Your task to perform on an android device: Open location settings Image 0: 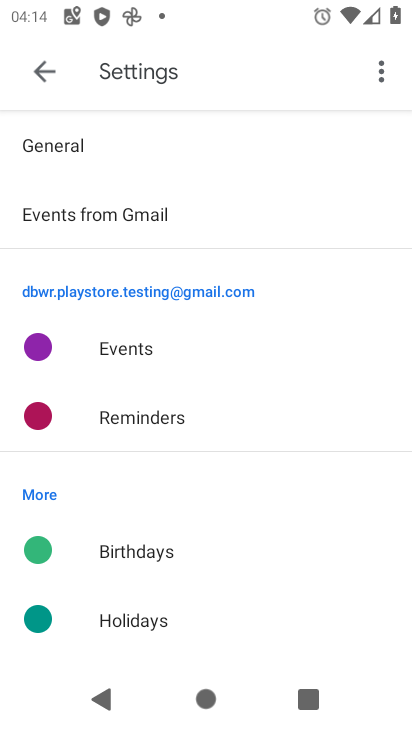
Step 0: press home button
Your task to perform on an android device: Open location settings Image 1: 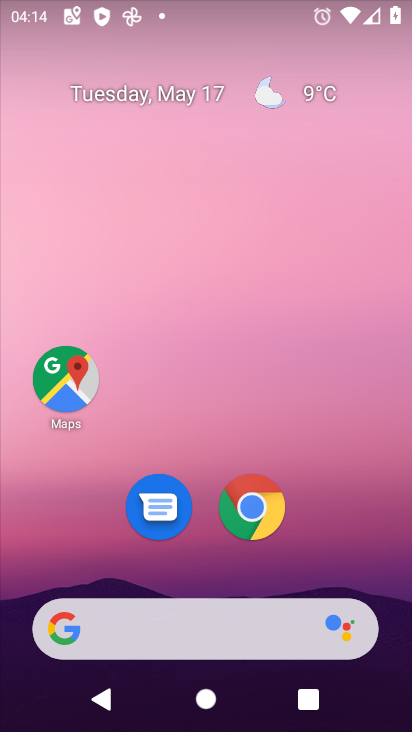
Step 1: drag from (359, 514) to (218, 18)
Your task to perform on an android device: Open location settings Image 2: 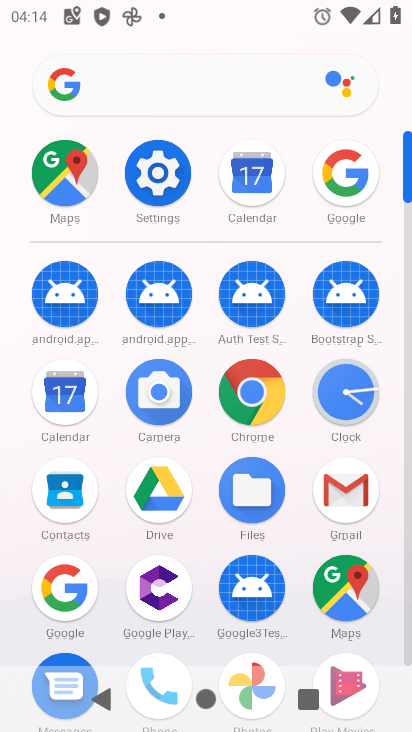
Step 2: click (171, 214)
Your task to perform on an android device: Open location settings Image 3: 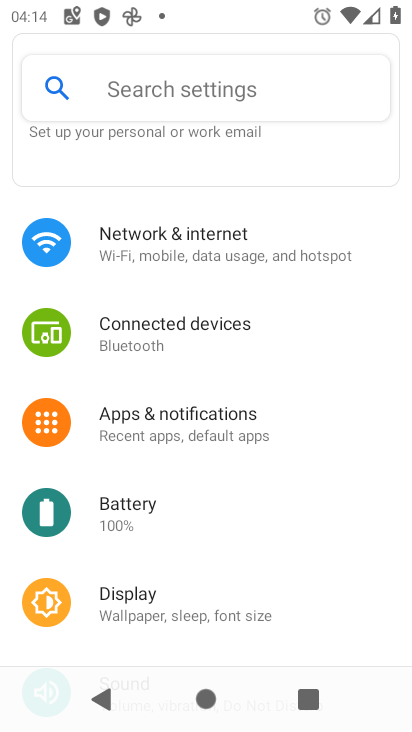
Step 3: drag from (220, 553) to (206, 153)
Your task to perform on an android device: Open location settings Image 4: 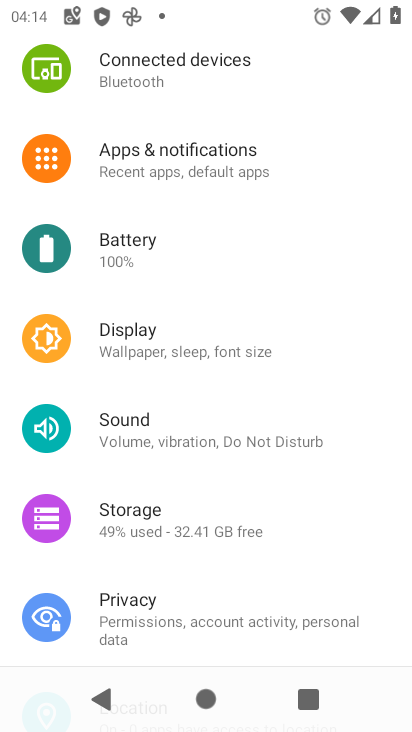
Step 4: drag from (188, 556) to (219, 187)
Your task to perform on an android device: Open location settings Image 5: 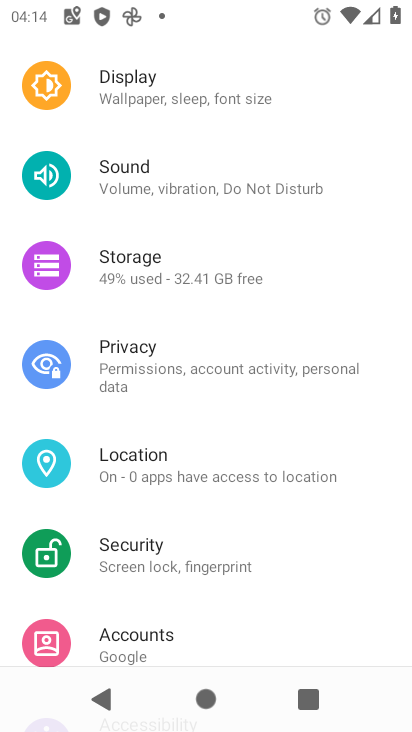
Step 5: click (199, 452)
Your task to perform on an android device: Open location settings Image 6: 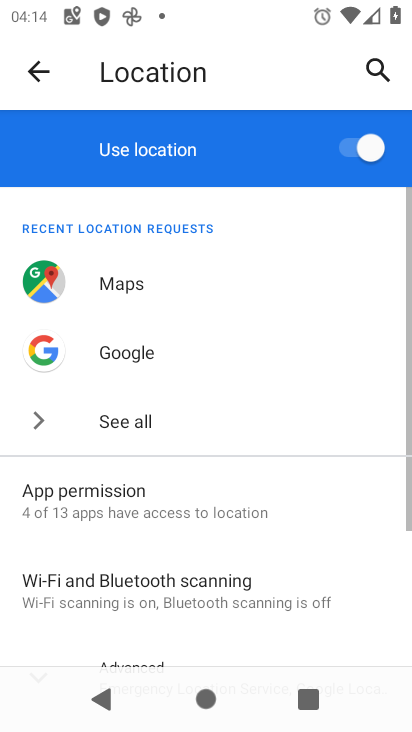
Step 6: task complete